Your task to perform on an android device: Empty the shopping cart on bestbuy.com. Image 0: 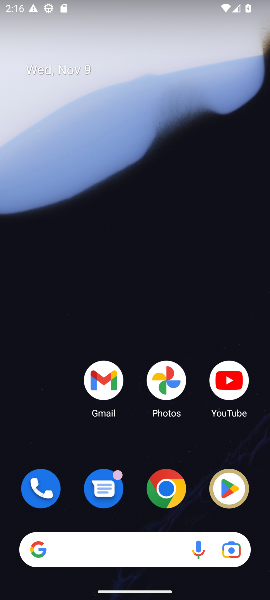
Step 0: drag from (123, 451) to (171, 21)
Your task to perform on an android device: Empty the shopping cart on bestbuy.com. Image 1: 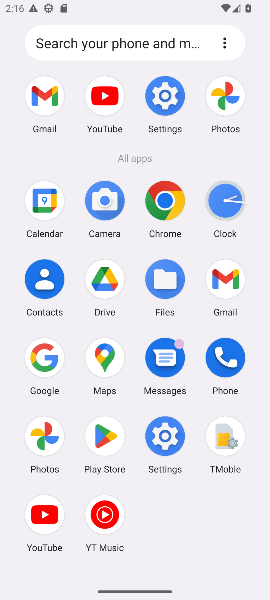
Step 1: click (161, 202)
Your task to perform on an android device: Empty the shopping cart on bestbuy.com. Image 2: 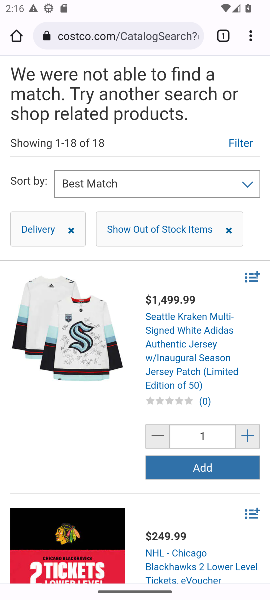
Step 2: click (152, 27)
Your task to perform on an android device: Empty the shopping cart on bestbuy.com. Image 3: 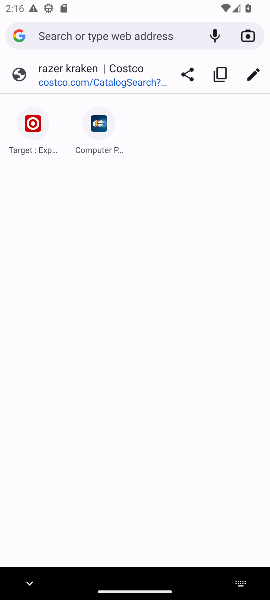
Step 3: type "bestbuy.com"
Your task to perform on an android device: Empty the shopping cart on bestbuy.com. Image 4: 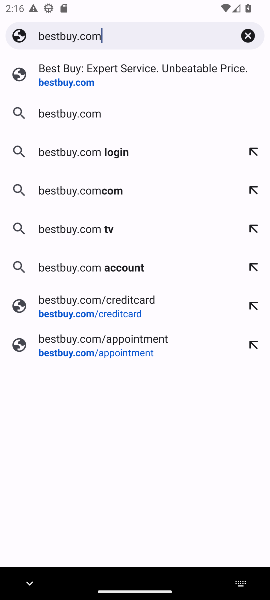
Step 4: press enter
Your task to perform on an android device: Empty the shopping cart on bestbuy.com. Image 5: 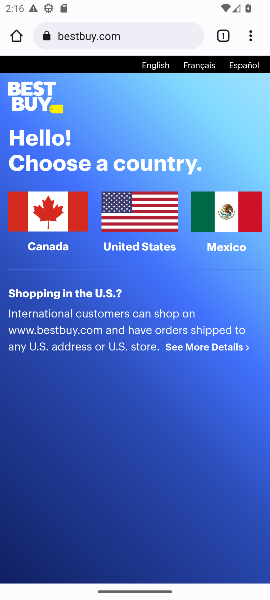
Step 5: click (45, 208)
Your task to perform on an android device: Empty the shopping cart on bestbuy.com. Image 6: 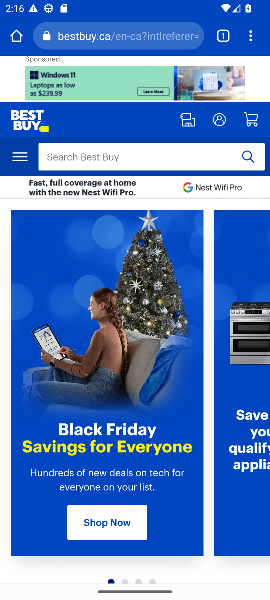
Step 6: click (257, 121)
Your task to perform on an android device: Empty the shopping cart on bestbuy.com. Image 7: 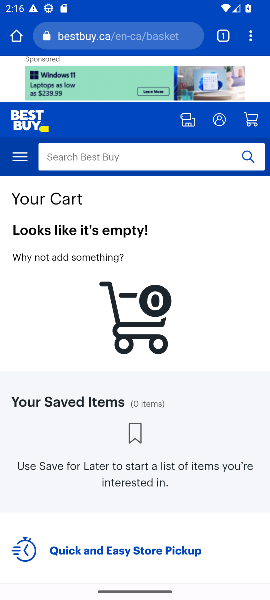
Step 7: click (257, 121)
Your task to perform on an android device: Empty the shopping cart on bestbuy.com. Image 8: 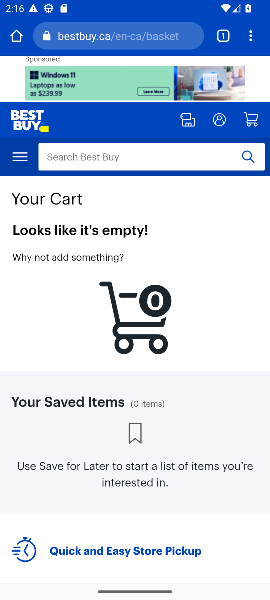
Step 8: task complete